Your task to perform on an android device: find which apps use the phone's location Image 0: 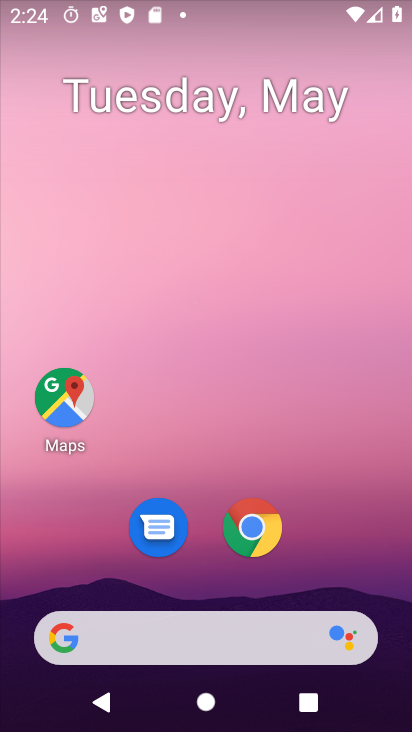
Step 0: drag from (263, 672) to (195, 228)
Your task to perform on an android device: find which apps use the phone's location Image 1: 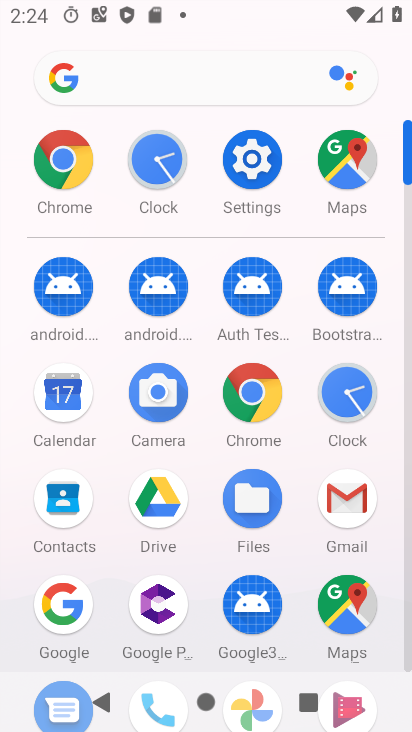
Step 1: click (234, 184)
Your task to perform on an android device: find which apps use the phone's location Image 2: 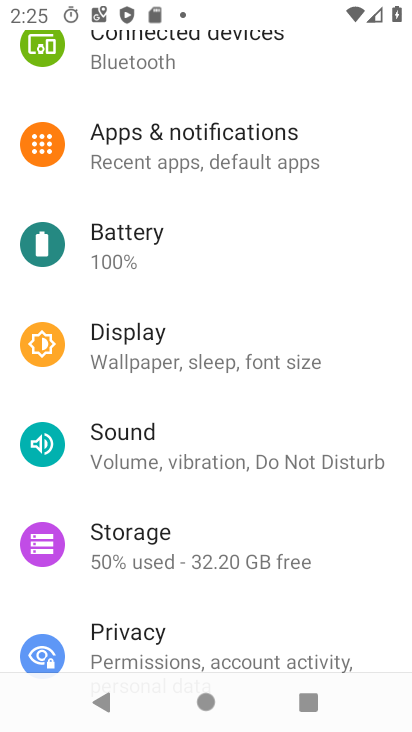
Step 2: drag from (219, 162) to (253, 418)
Your task to perform on an android device: find which apps use the phone's location Image 3: 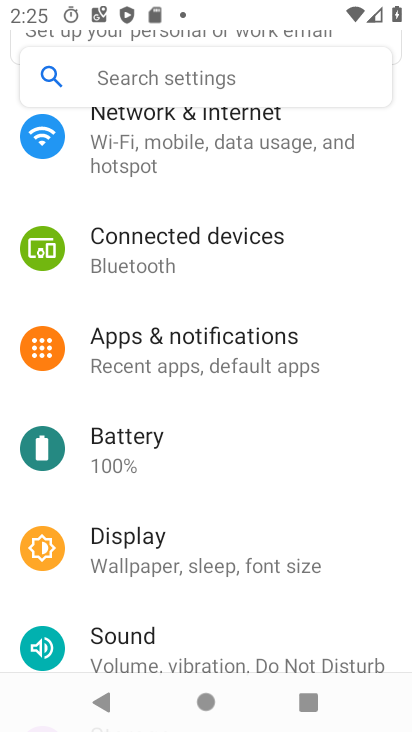
Step 3: click (169, 83)
Your task to perform on an android device: find which apps use the phone's location Image 4: 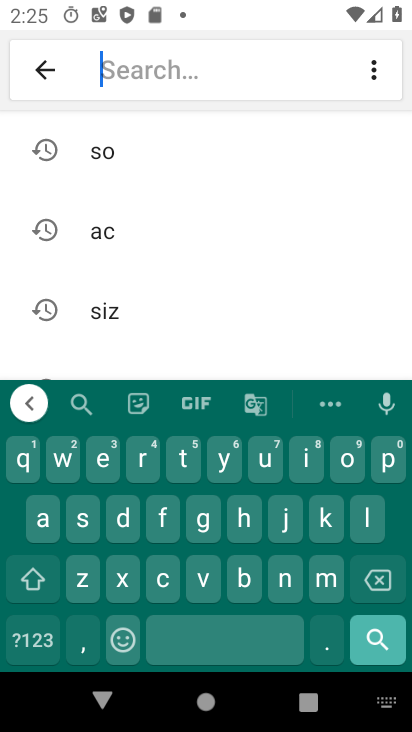
Step 4: click (373, 518)
Your task to perform on an android device: find which apps use the phone's location Image 5: 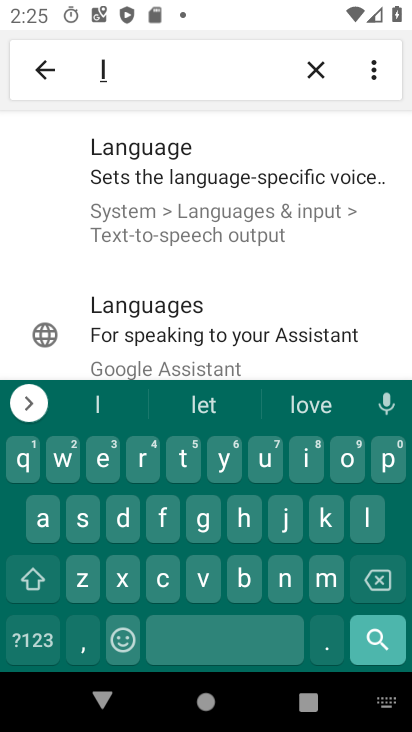
Step 5: click (336, 460)
Your task to perform on an android device: find which apps use the phone's location Image 6: 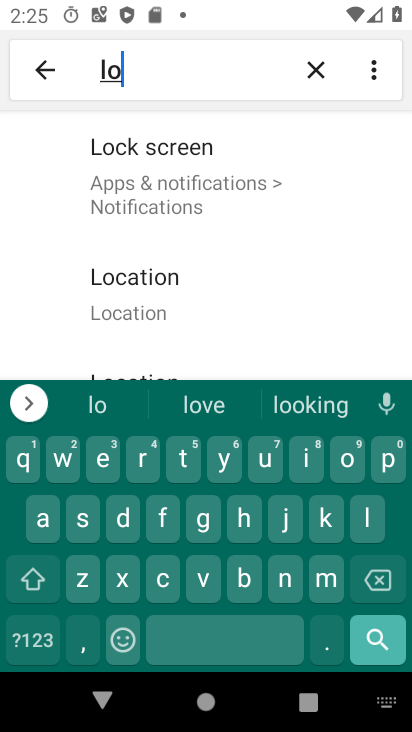
Step 6: click (154, 285)
Your task to perform on an android device: find which apps use the phone's location Image 7: 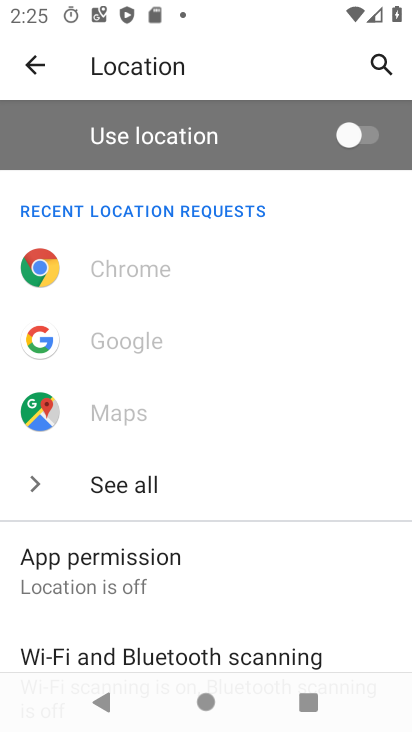
Step 7: task complete